Your task to perform on an android device: Open privacy settings Image 0: 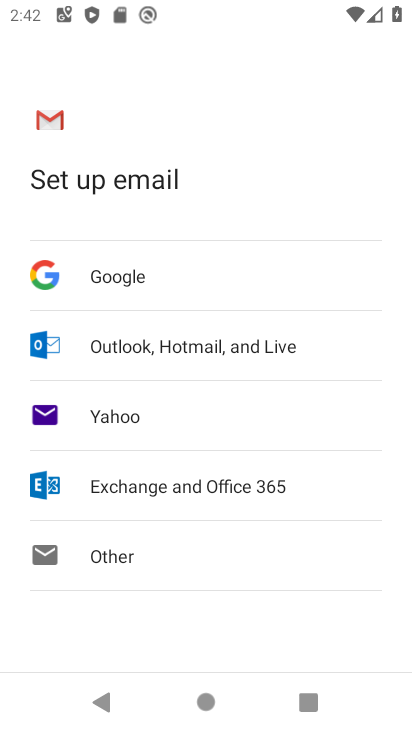
Step 0: press back button
Your task to perform on an android device: Open privacy settings Image 1: 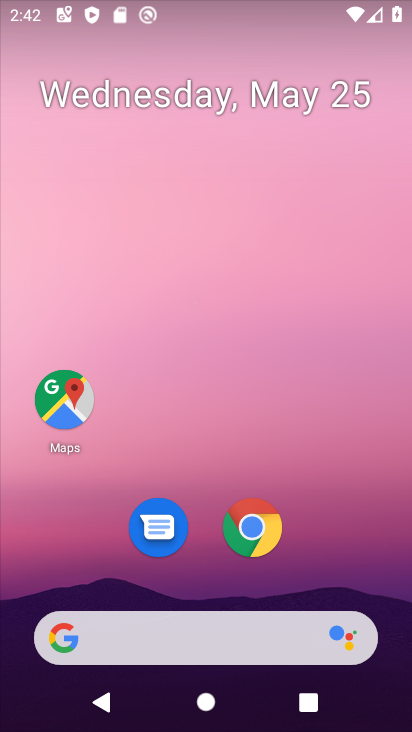
Step 1: drag from (222, 595) to (267, 91)
Your task to perform on an android device: Open privacy settings Image 2: 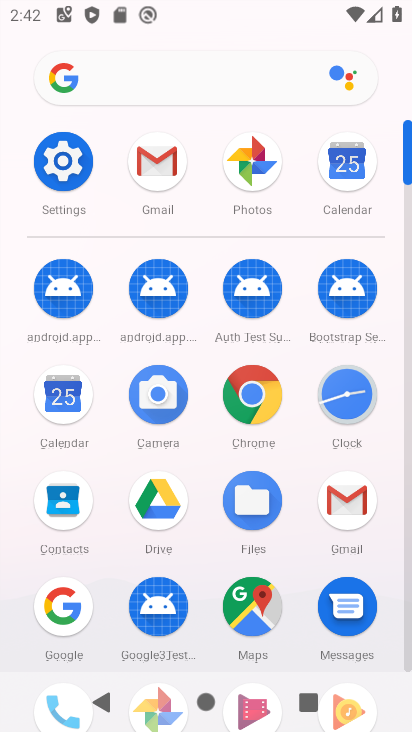
Step 2: click (70, 153)
Your task to perform on an android device: Open privacy settings Image 3: 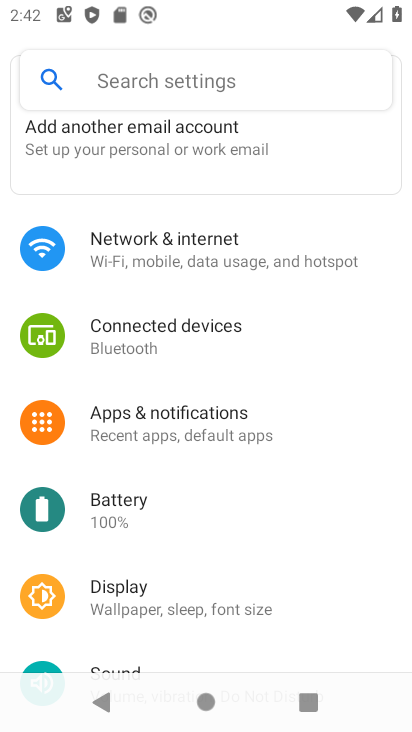
Step 3: drag from (142, 635) to (216, 131)
Your task to perform on an android device: Open privacy settings Image 4: 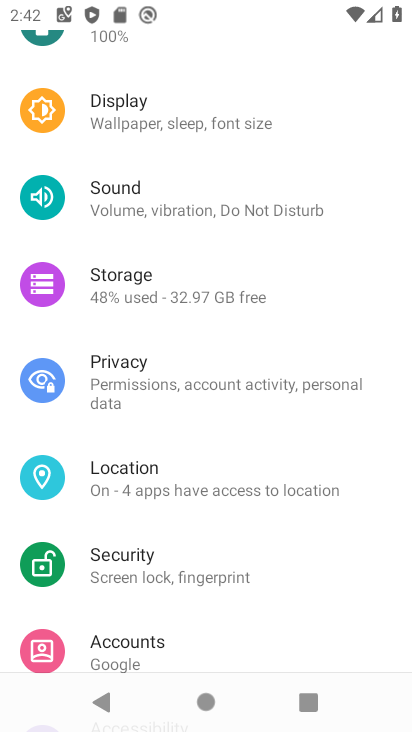
Step 4: click (145, 372)
Your task to perform on an android device: Open privacy settings Image 5: 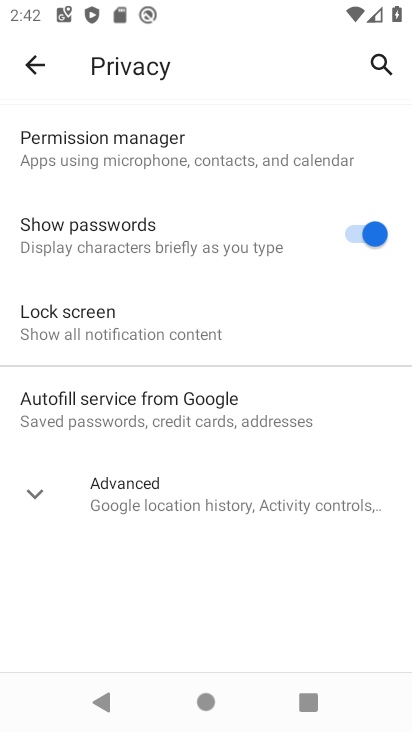
Step 5: task complete